Your task to perform on an android device: turn off location history Image 0: 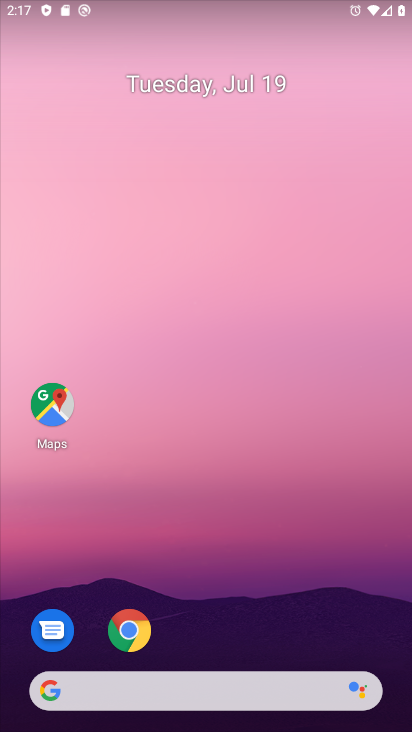
Step 0: drag from (255, 626) to (277, 56)
Your task to perform on an android device: turn off location history Image 1: 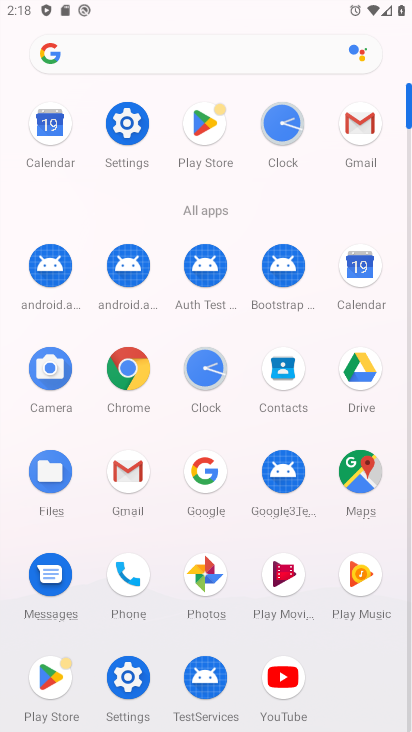
Step 1: click (132, 119)
Your task to perform on an android device: turn off location history Image 2: 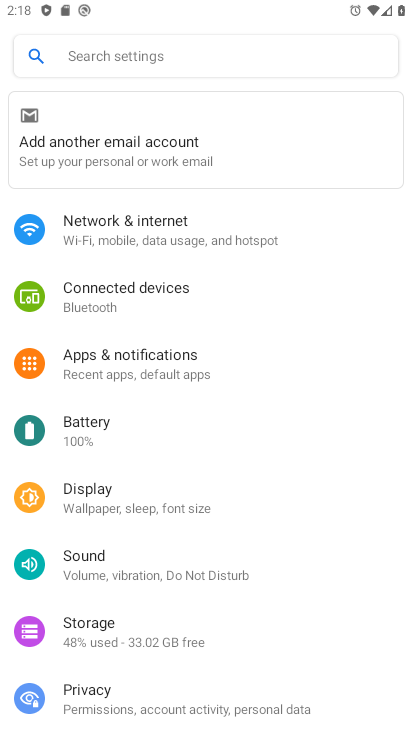
Step 2: drag from (256, 621) to (256, 121)
Your task to perform on an android device: turn off location history Image 3: 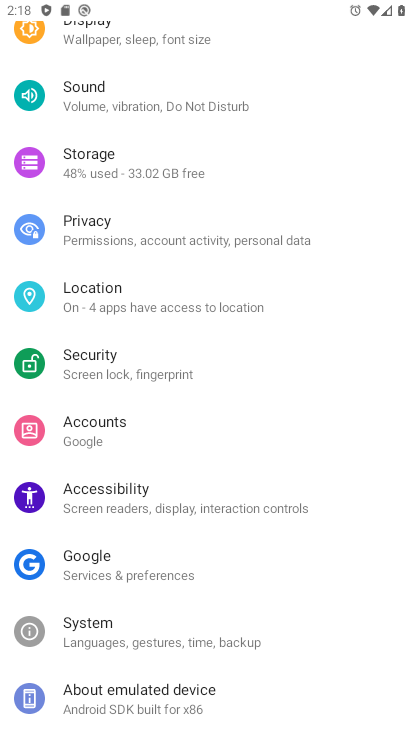
Step 3: click (209, 293)
Your task to perform on an android device: turn off location history Image 4: 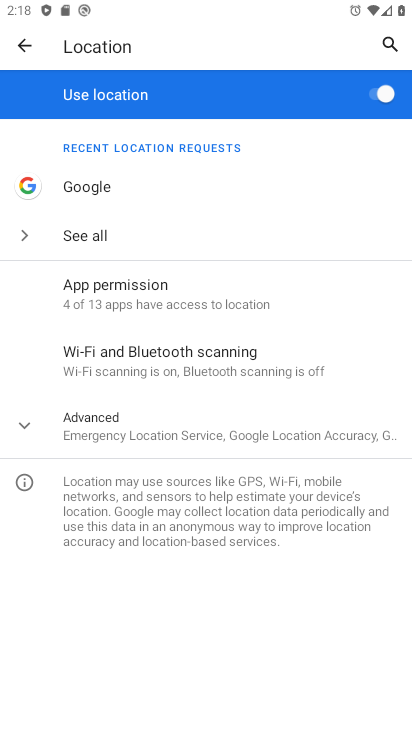
Step 4: click (22, 419)
Your task to perform on an android device: turn off location history Image 5: 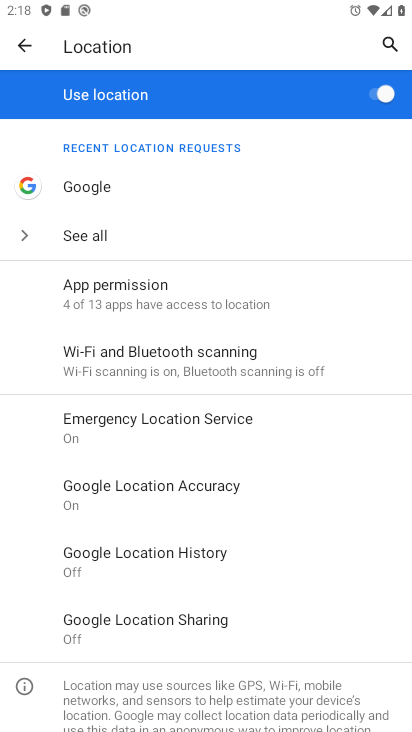
Step 5: click (139, 553)
Your task to perform on an android device: turn off location history Image 6: 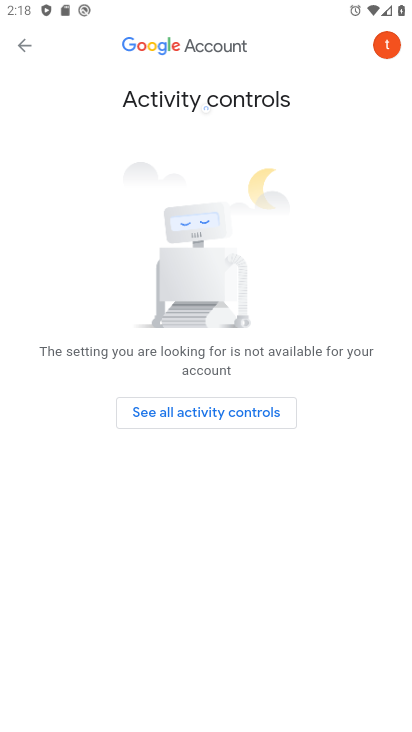
Step 6: click (241, 402)
Your task to perform on an android device: turn off location history Image 7: 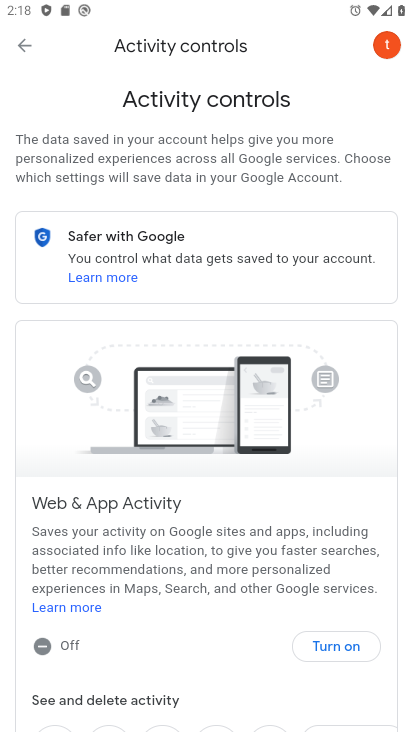
Step 7: task complete